Your task to perform on an android device: Toggle the flashlight Image 0: 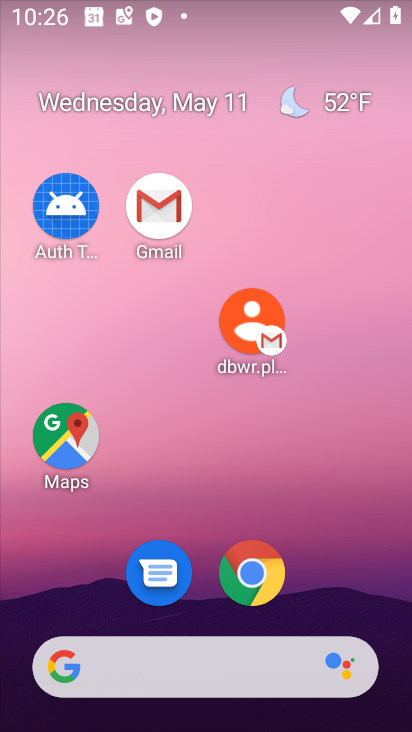
Step 0: drag from (371, 660) to (188, 288)
Your task to perform on an android device: Toggle the flashlight Image 1: 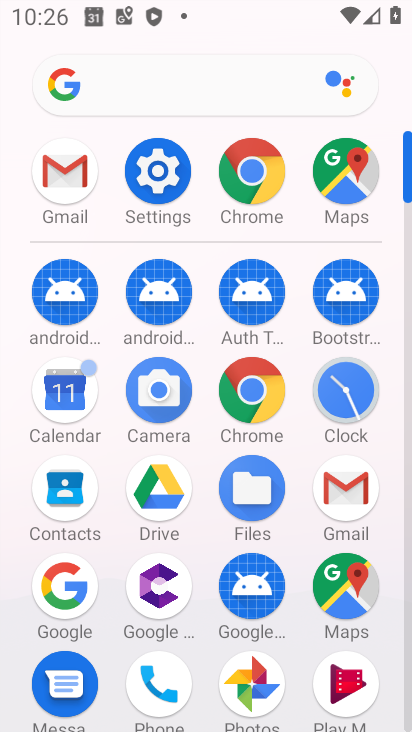
Step 1: click (143, 154)
Your task to perform on an android device: Toggle the flashlight Image 2: 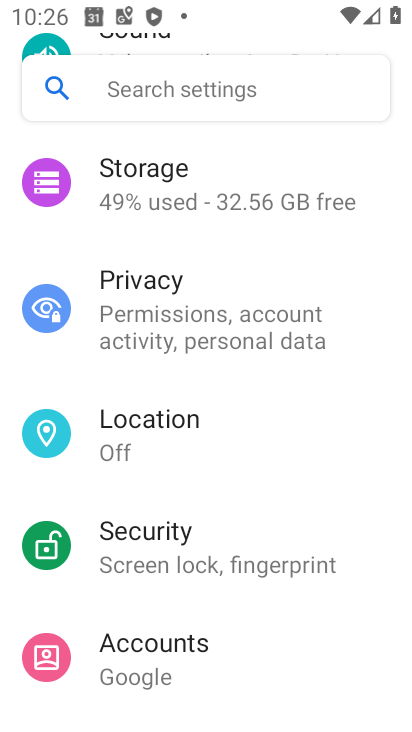
Step 2: task complete